Your task to perform on an android device: turn on javascript in the chrome app Image 0: 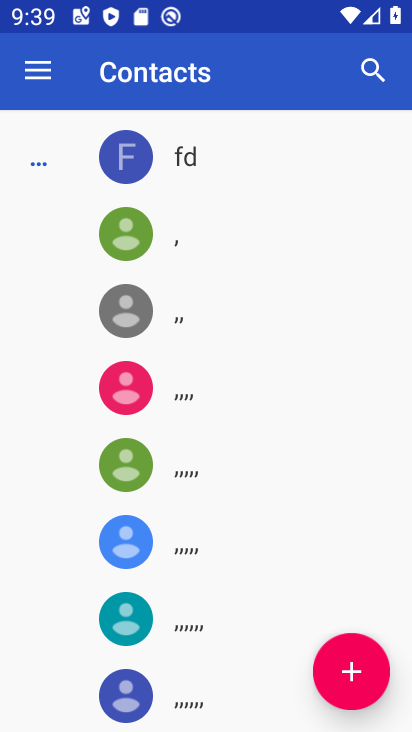
Step 0: click (335, 596)
Your task to perform on an android device: turn on javascript in the chrome app Image 1: 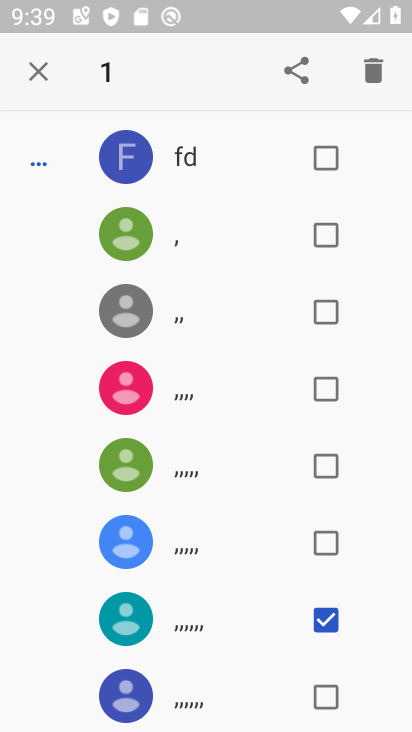
Step 1: press home button
Your task to perform on an android device: turn on javascript in the chrome app Image 2: 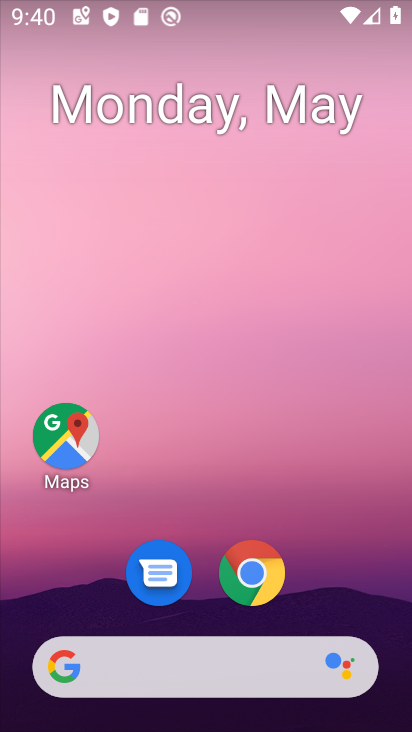
Step 2: click (238, 601)
Your task to perform on an android device: turn on javascript in the chrome app Image 3: 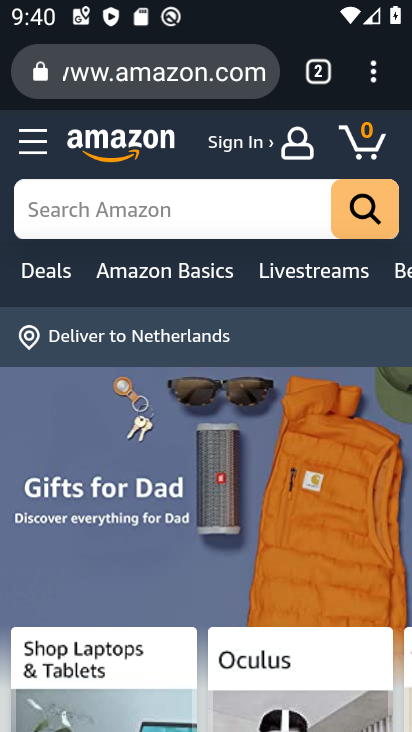
Step 3: click (371, 69)
Your task to perform on an android device: turn on javascript in the chrome app Image 4: 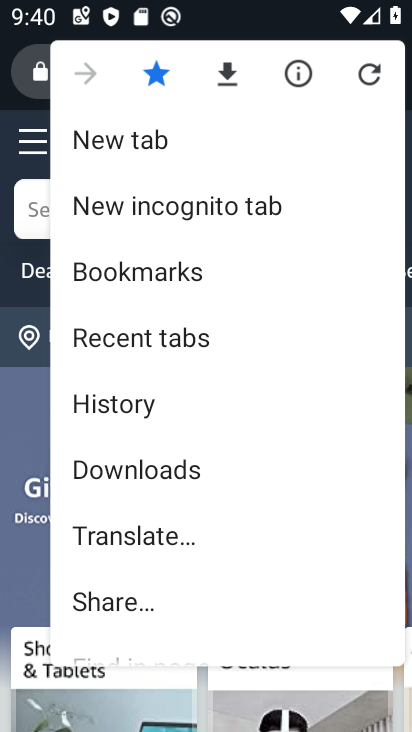
Step 4: drag from (242, 662) to (239, 599)
Your task to perform on an android device: turn on javascript in the chrome app Image 5: 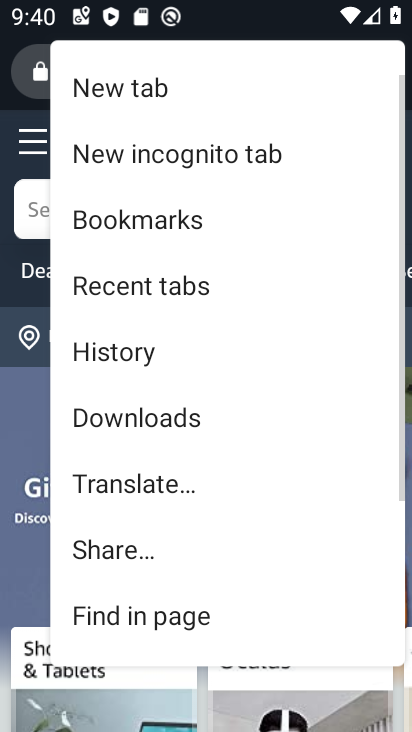
Step 5: drag from (239, 599) to (207, 404)
Your task to perform on an android device: turn on javascript in the chrome app Image 6: 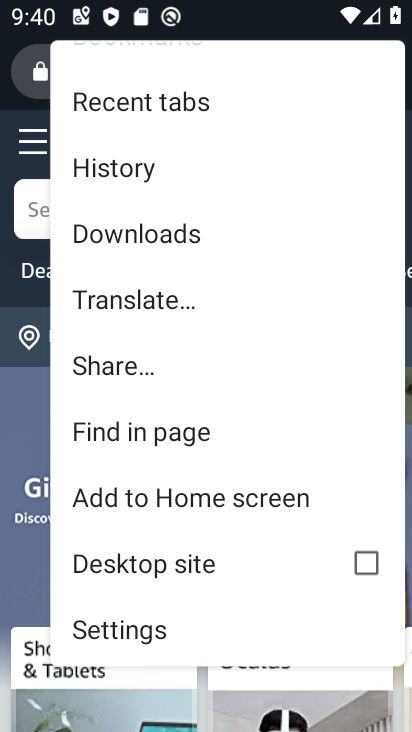
Step 6: click (207, 629)
Your task to perform on an android device: turn on javascript in the chrome app Image 7: 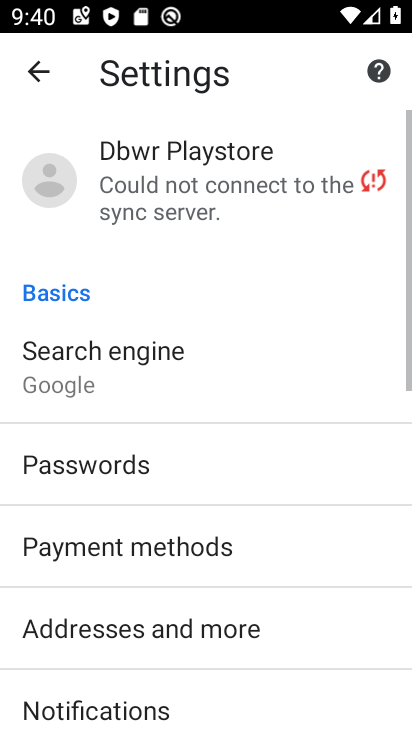
Step 7: drag from (250, 629) to (204, 216)
Your task to perform on an android device: turn on javascript in the chrome app Image 8: 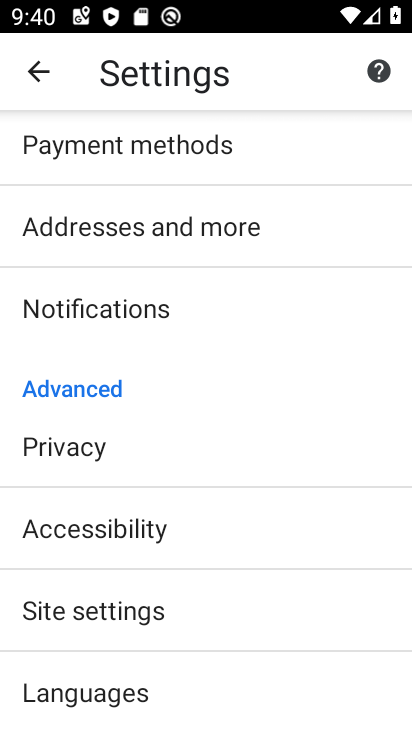
Step 8: click (262, 623)
Your task to perform on an android device: turn on javascript in the chrome app Image 9: 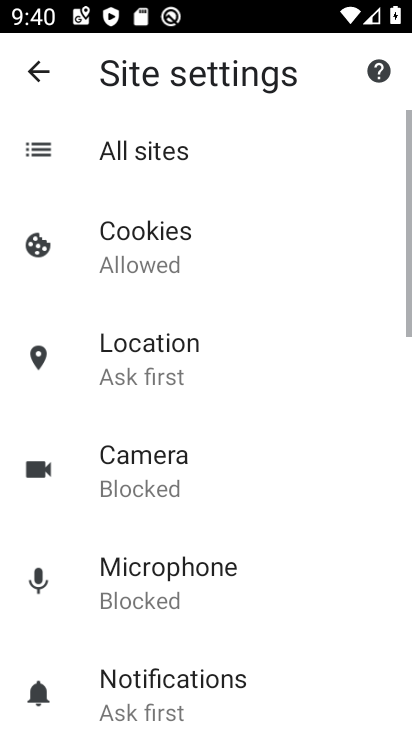
Step 9: drag from (262, 623) to (206, 248)
Your task to perform on an android device: turn on javascript in the chrome app Image 10: 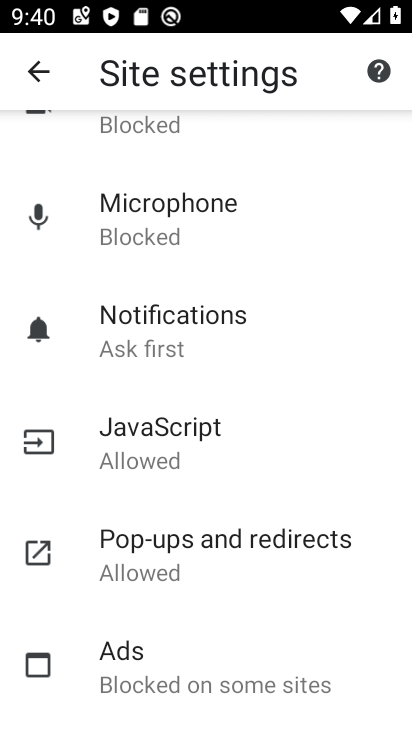
Step 10: click (228, 421)
Your task to perform on an android device: turn on javascript in the chrome app Image 11: 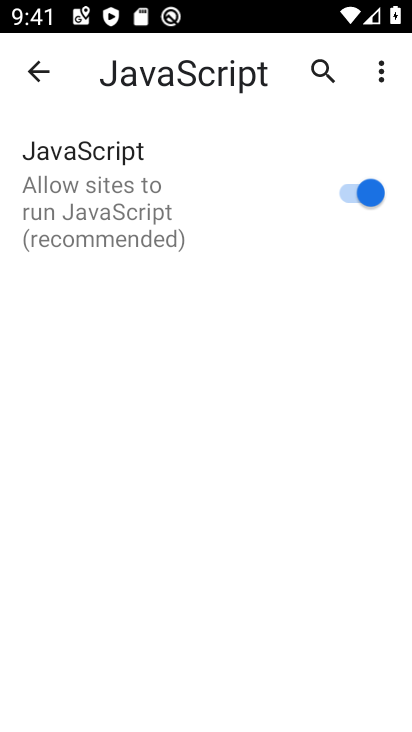
Step 11: task complete